Your task to perform on an android device: turn off javascript in the chrome app Image 0: 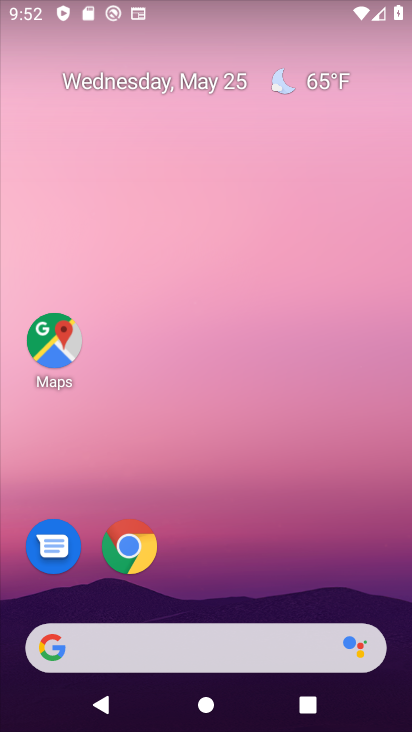
Step 0: drag from (271, 556) to (113, 10)
Your task to perform on an android device: turn off javascript in the chrome app Image 1: 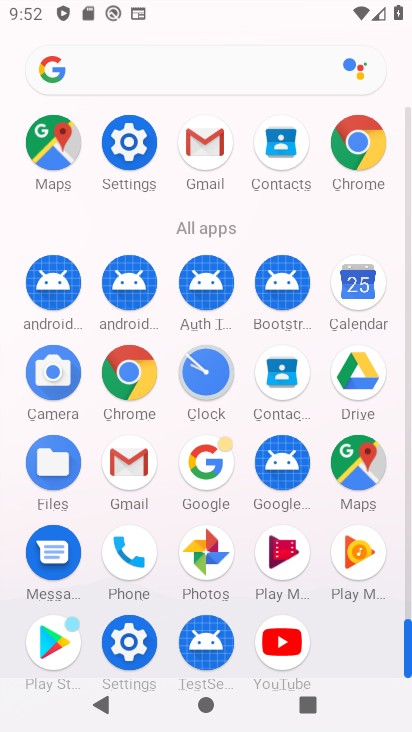
Step 1: click (360, 136)
Your task to perform on an android device: turn off javascript in the chrome app Image 2: 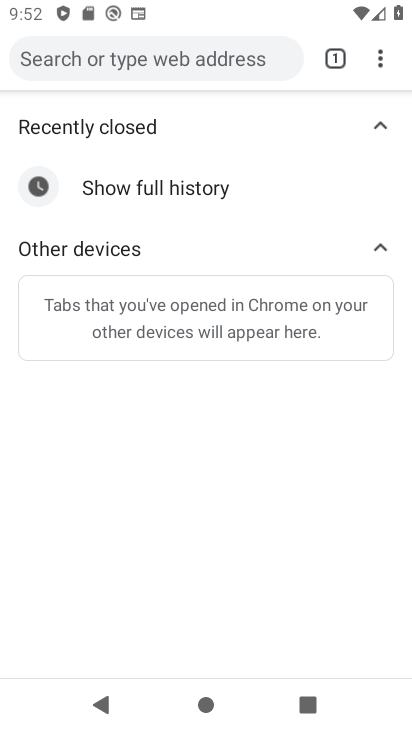
Step 2: drag from (380, 59) to (133, 493)
Your task to perform on an android device: turn off javascript in the chrome app Image 3: 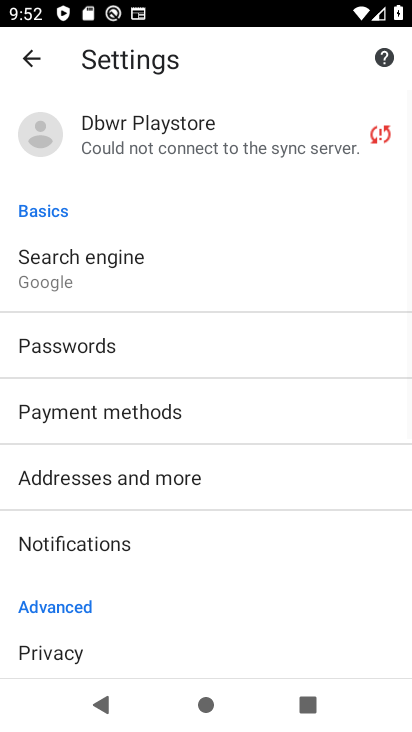
Step 3: drag from (282, 599) to (272, 192)
Your task to perform on an android device: turn off javascript in the chrome app Image 4: 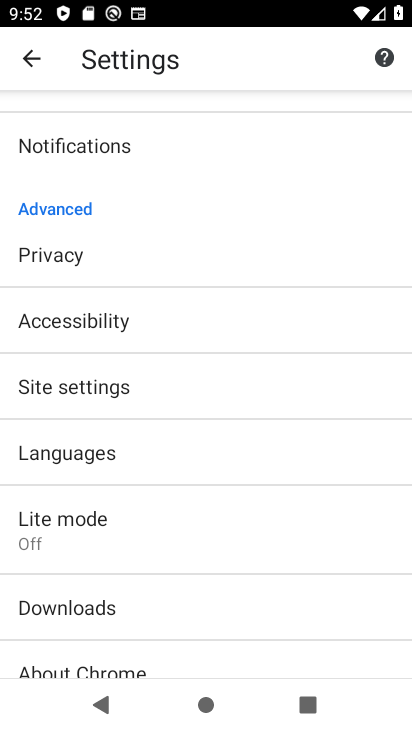
Step 4: click (106, 373)
Your task to perform on an android device: turn off javascript in the chrome app Image 5: 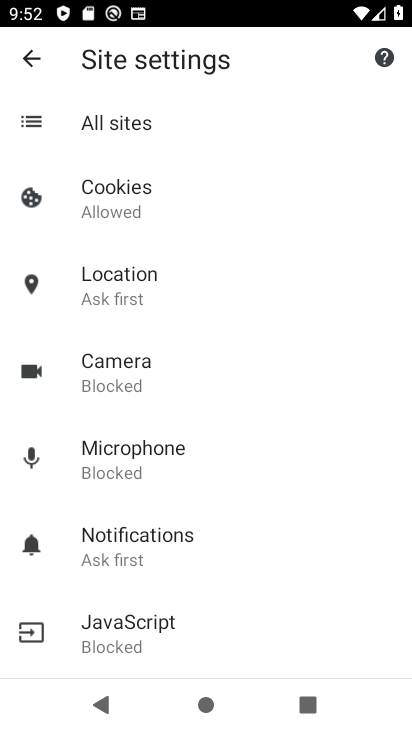
Step 5: drag from (221, 581) to (211, 180)
Your task to perform on an android device: turn off javascript in the chrome app Image 6: 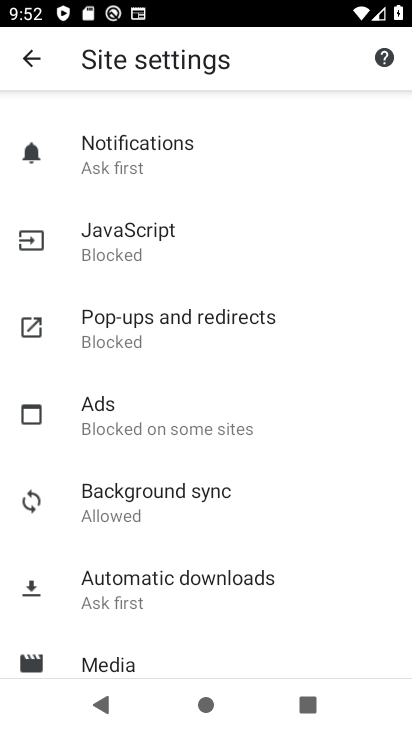
Step 6: click (168, 330)
Your task to perform on an android device: turn off javascript in the chrome app Image 7: 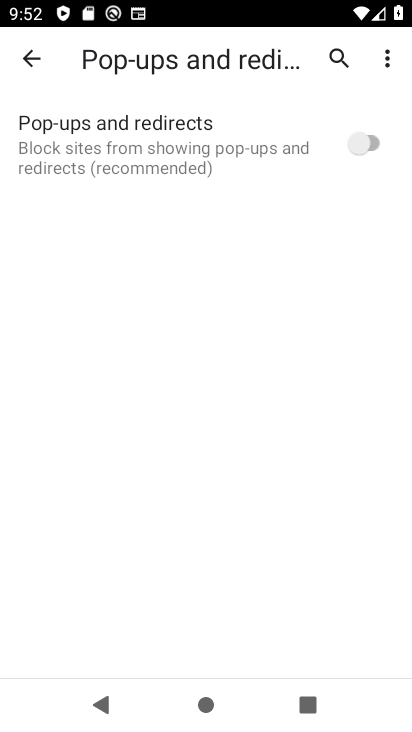
Step 7: task complete